Your task to perform on an android device: check out phone information Image 0: 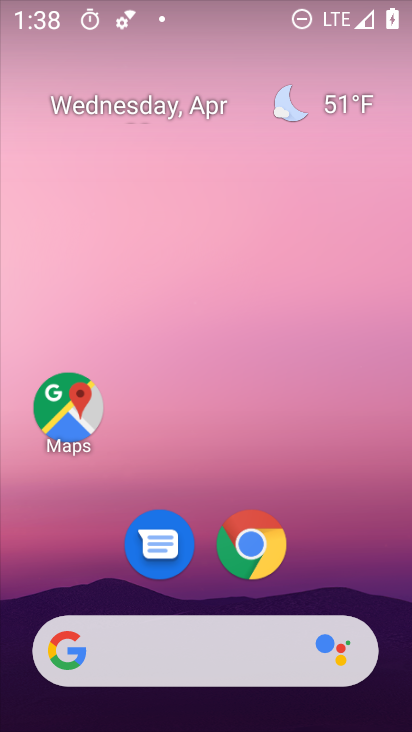
Step 0: drag from (338, 560) to (331, 93)
Your task to perform on an android device: check out phone information Image 1: 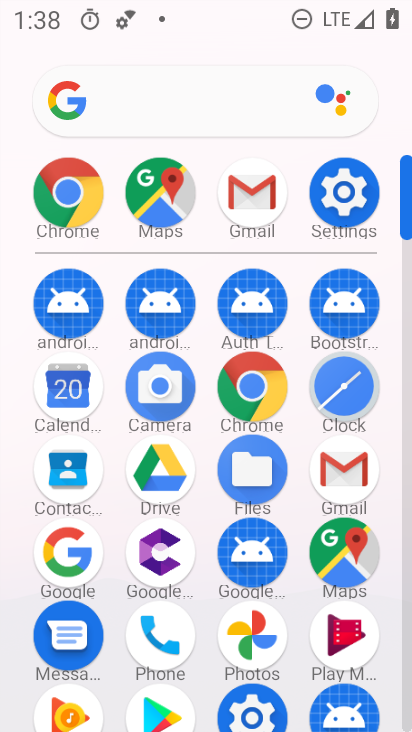
Step 1: click (171, 637)
Your task to perform on an android device: check out phone information Image 2: 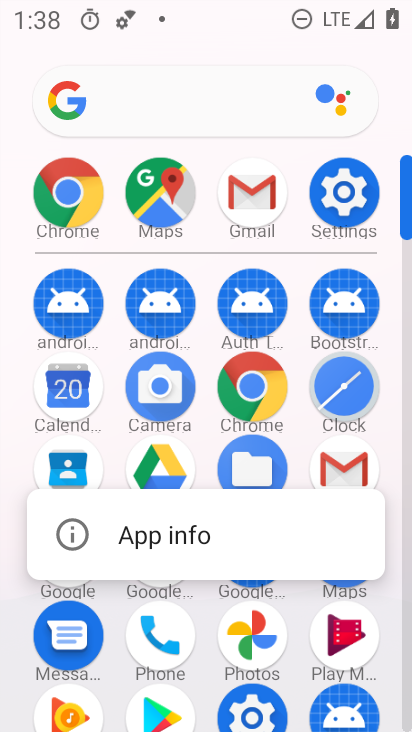
Step 2: click (153, 652)
Your task to perform on an android device: check out phone information Image 3: 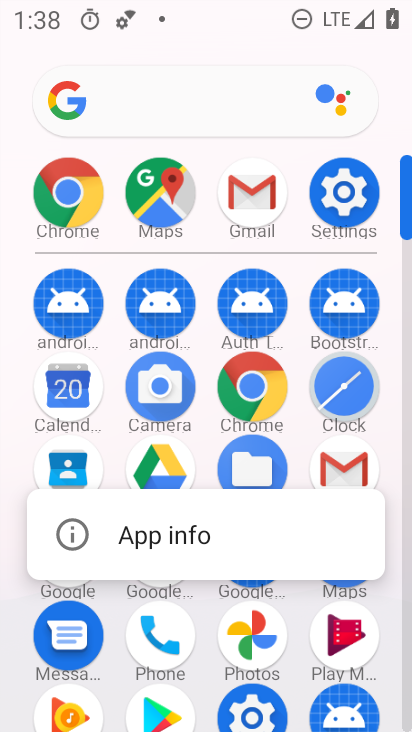
Step 3: click (166, 654)
Your task to perform on an android device: check out phone information Image 4: 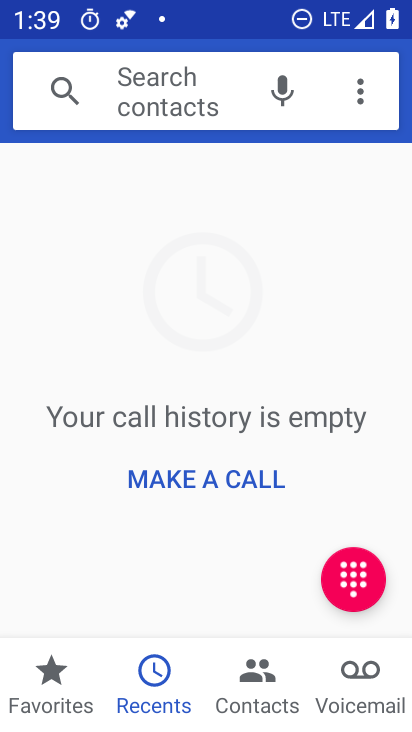
Step 4: task complete